Your task to perform on an android device: check out phone information Image 0: 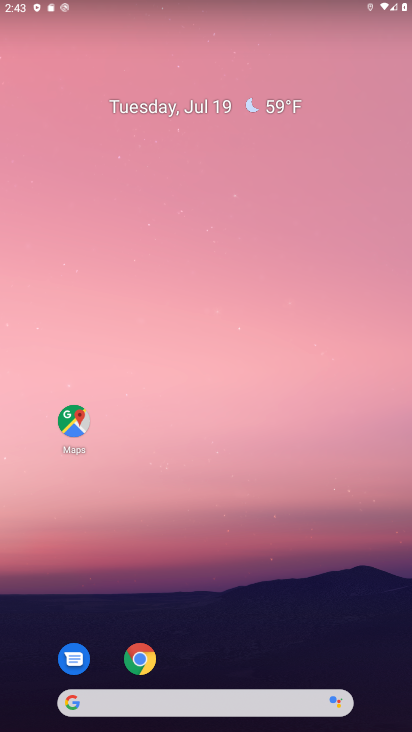
Step 0: drag from (261, 689) to (273, 269)
Your task to perform on an android device: check out phone information Image 1: 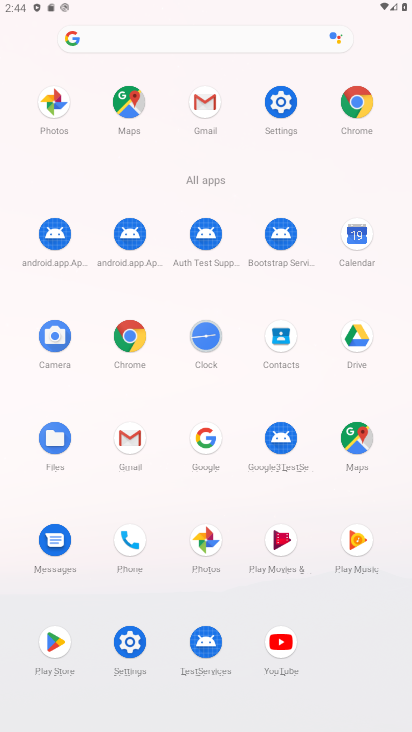
Step 1: click (279, 100)
Your task to perform on an android device: check out phone information Image 2: 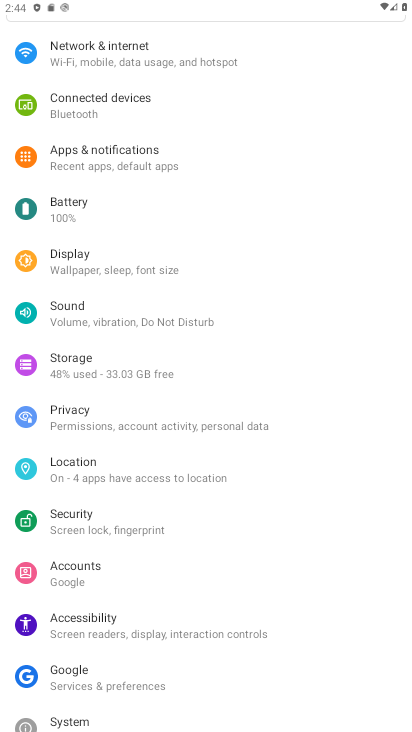
Step 2: drag from (123, 561) to (178, 461)
Your task to perform on an android device: check out phone information Image 3: 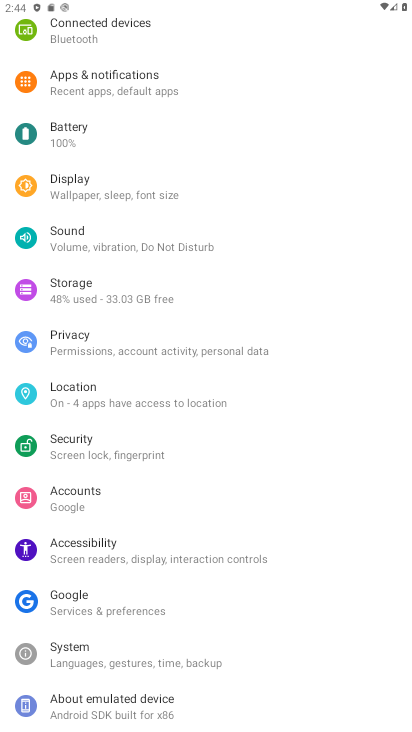
Step 3: click (94, 698)
Your task to perform on an android device: check out phone information Image 4: 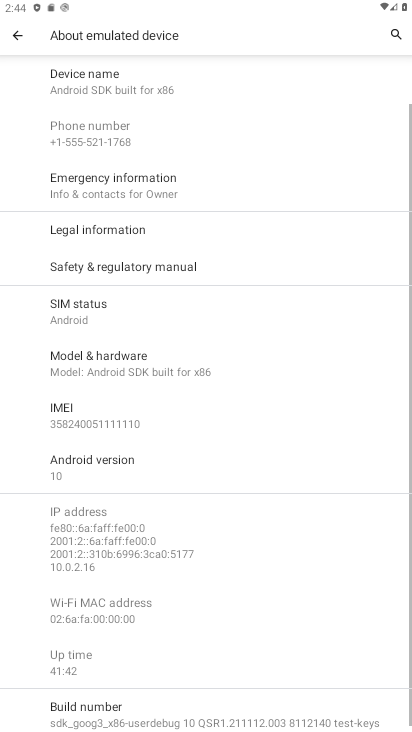
Step 4: task complete